Your task to perform on an android device: check data usage Image 0: 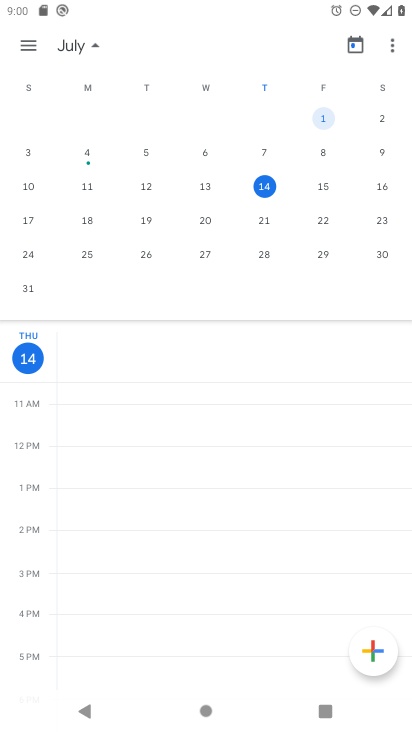
Step 0: press home button
Your task to perform on an android device: check data usage Image 1: 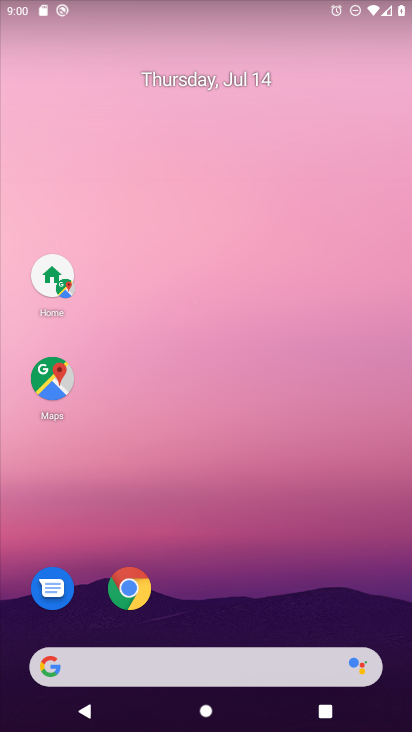
Step 1: drag from (45, 702) to (283, 137)
Your task to perform on an android device: check data usage Image 2: 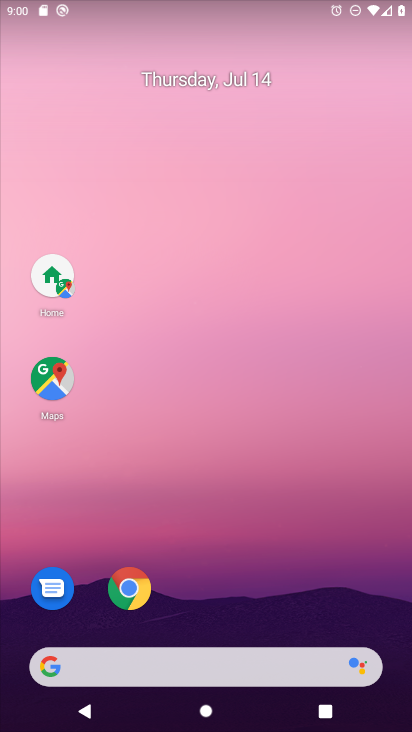
Step 2: drag from (21, 720) to (401, 286)
Your task to perform on an android device: check data usage Image 3: 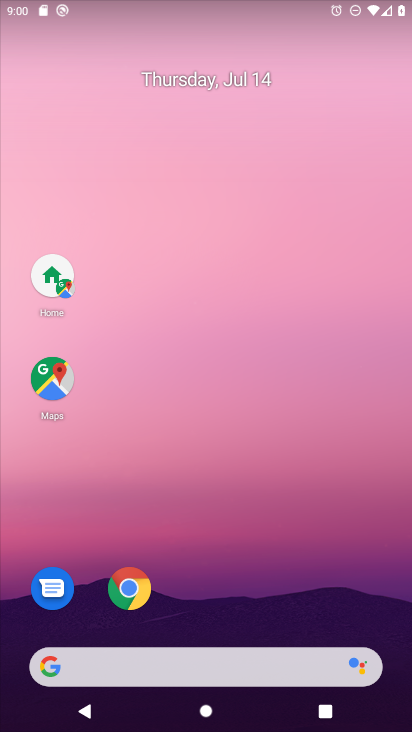
Step 3: drag from (31, 713) to (288, 74)
Your task to perform on an android device: check data usage Image 4: 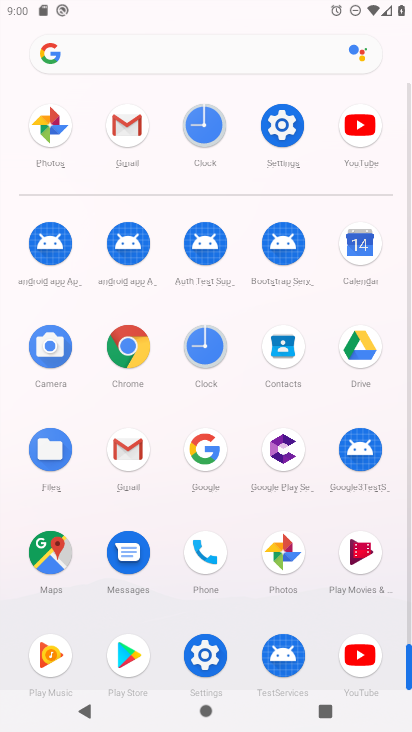
Step 4: click (188, 655)
Your task to perform on an android device: check data usage Image 5: 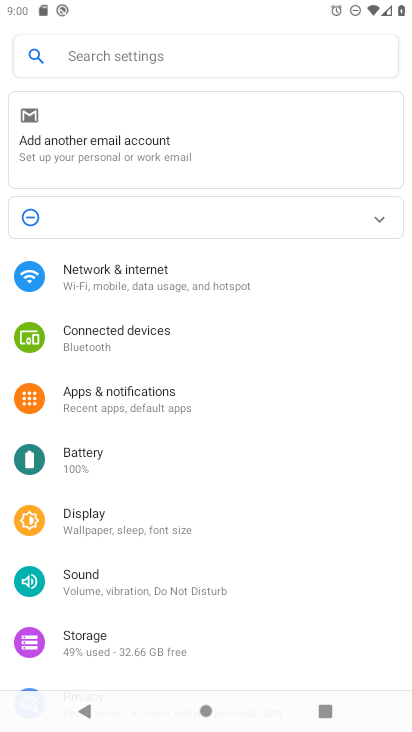
Step 5: click (122, 273)
Your task to perform on an android device: check data usage Image 6: 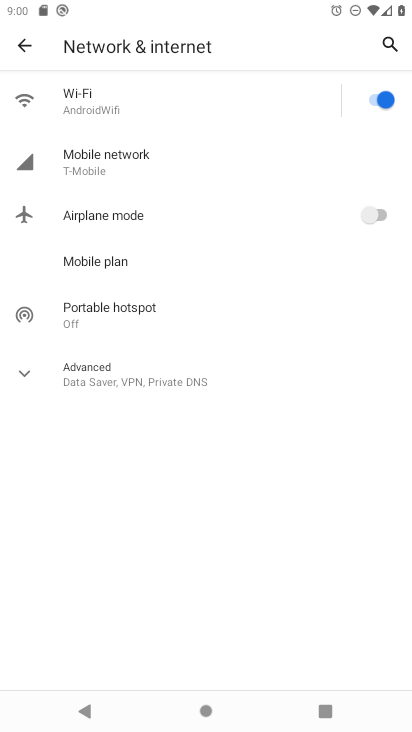
Step 6: click (138, 149)
Your task to perform on an android device: check data usage Image 7: 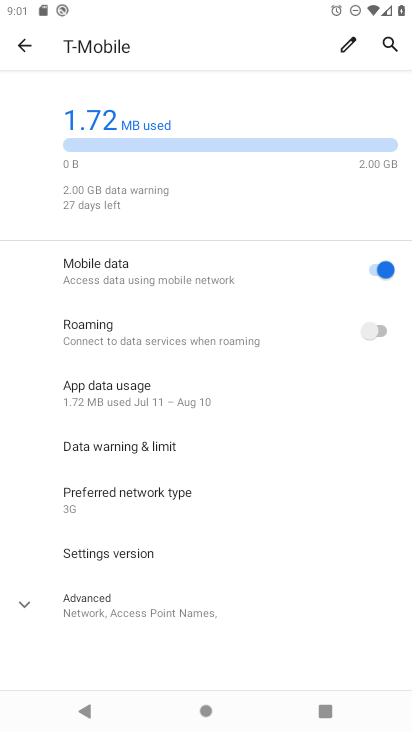
Step 7: task complete